Your task to perform on an android device: toggle show notifications on the lock screen Image 0: 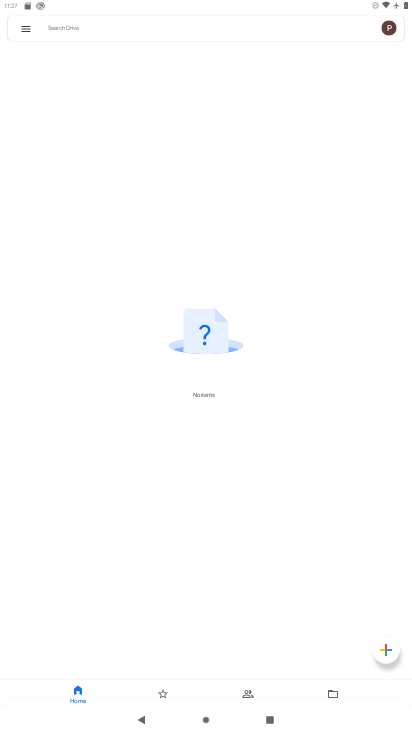
Step 0: press home button
Your task to perform on an android device: toggle show notifications on the lock screen Image 1: 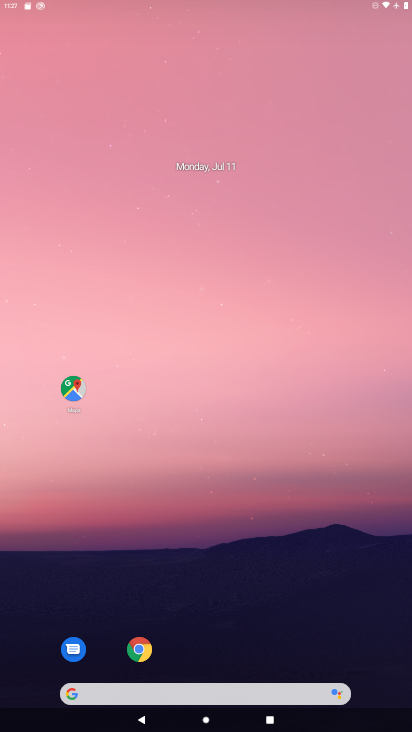
Step 1: drag from (318, 601) to (285, 91)
Your task to perform on an android device: toggle show notifications on the lock screen Image 2: 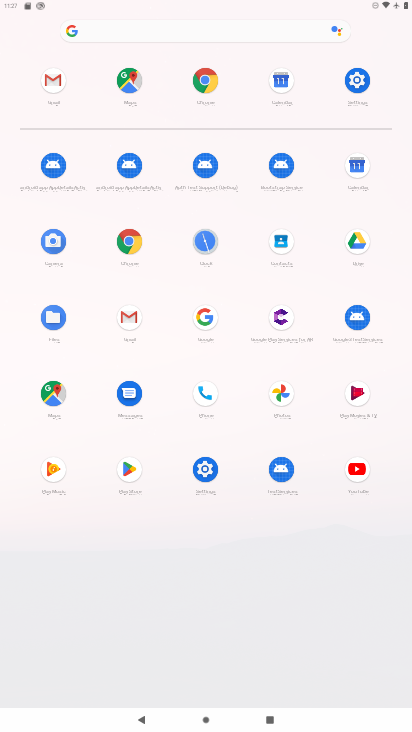
Step 2: click (365, 86)
Your task to perform on an android device: toggle show notifications on the lock screen Image 3: 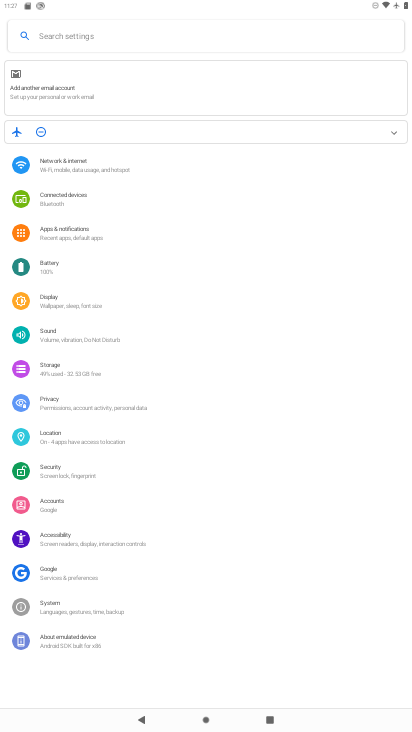
Step 3: click (78, 238)
Your task to perform on an android device: toggle show notifications on the lock screen Image 4: 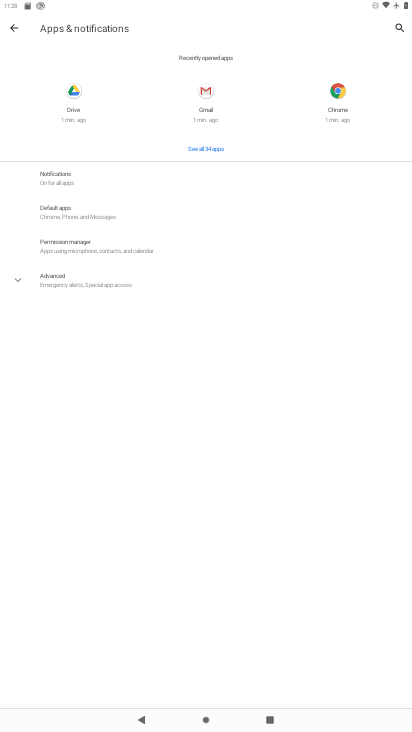
Step 4: click (94, 184)
Your task to perform on an android device: toggle show notifications on the lock screen Image 5: 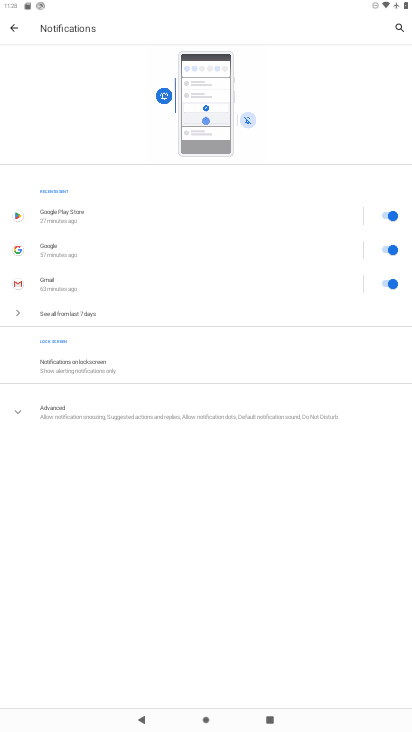
Step 5: click (120, 366)
Your task to perform on an android device: toggle show notifications on the lock screen Image 6: 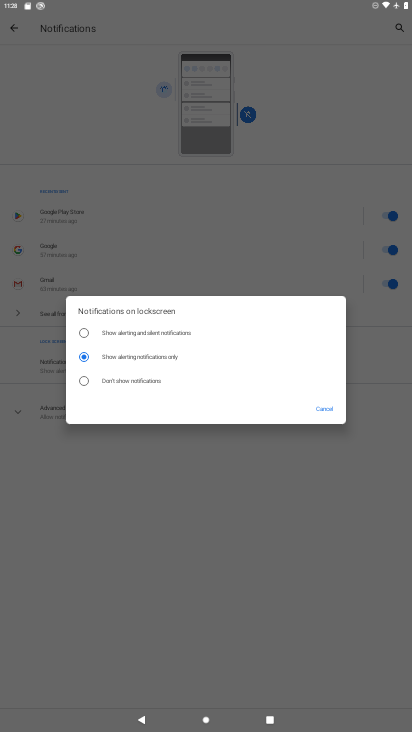
Step 6: click (140, 381)
Your task to perform on an android device: toggle show notifications on the lock screen Image 7: 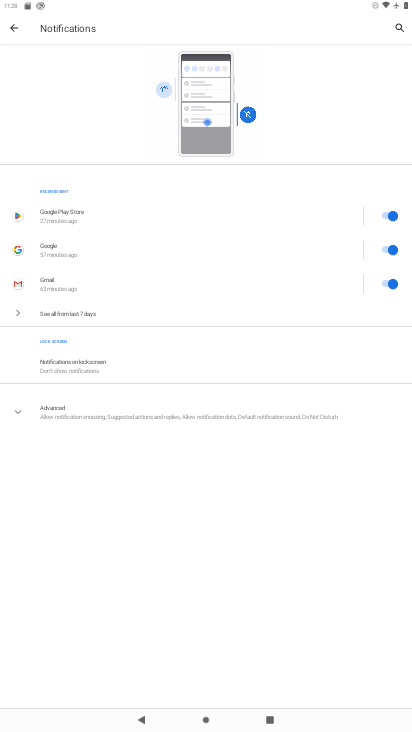
Step 7: task complete